Your task to perform on an android device: Go to CNN.com Image 0: 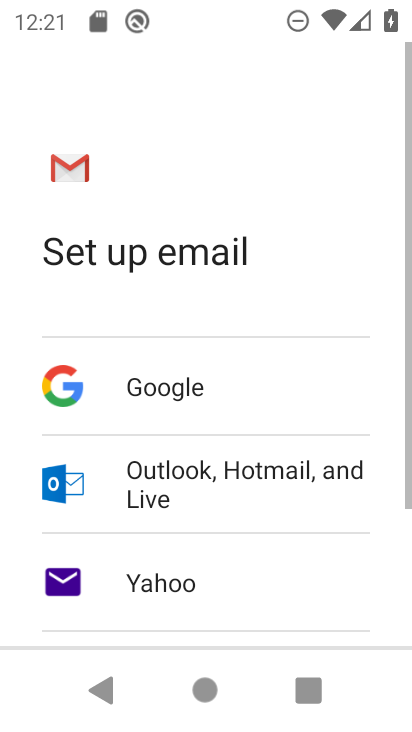
Step 0: press back button
Your task to perform on an android device: Go to CNN.com Image 1: 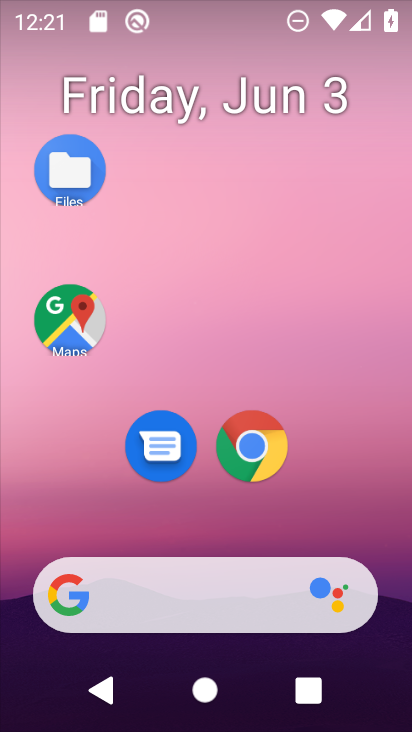
Step 1: drag from (220, 576) to (178, 185)
Your task to perform on an android device: Go to CNN.com Image 2: 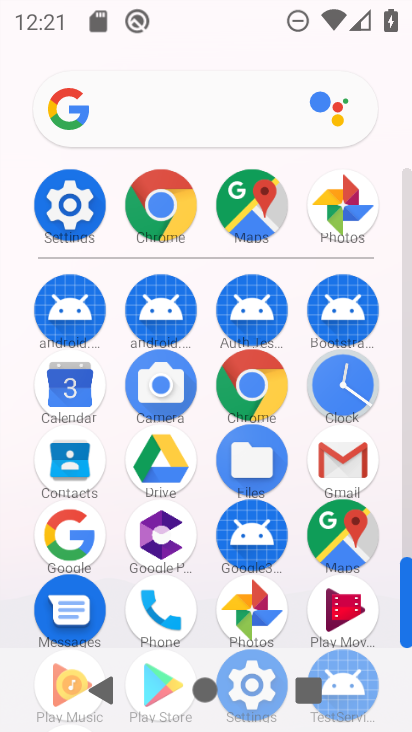
Step 2: click (167, 206)
Your task to perform on an android device: Go to CNN.com Image 3: 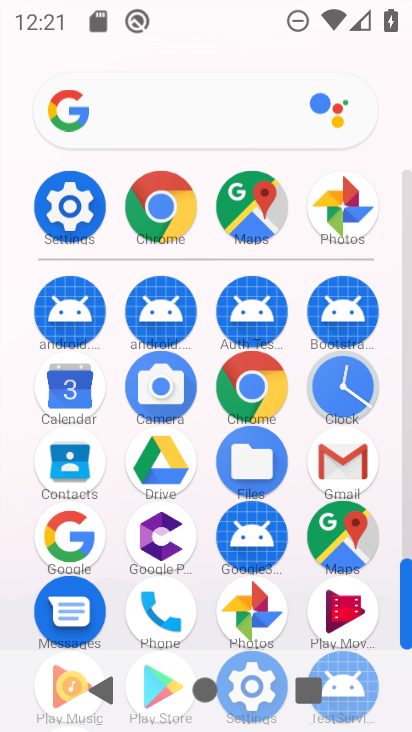
Step 3: click (164, 222)
Your task to perform on an android device: Go to CNN.com Image 4: 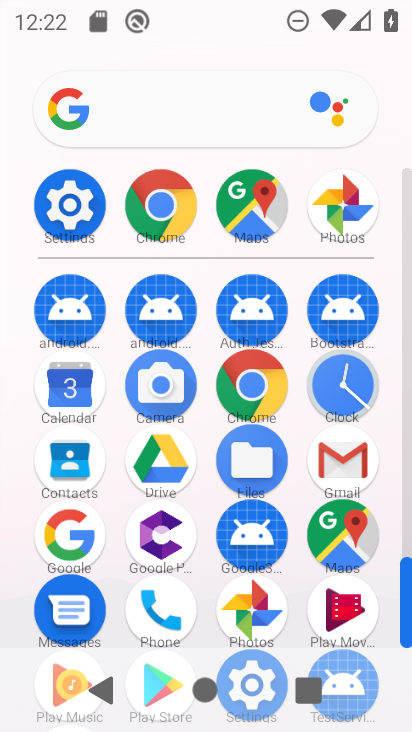
Step 4: click (160, 203)
Your task to perform on an android device: Go to CNN.com Image 5: 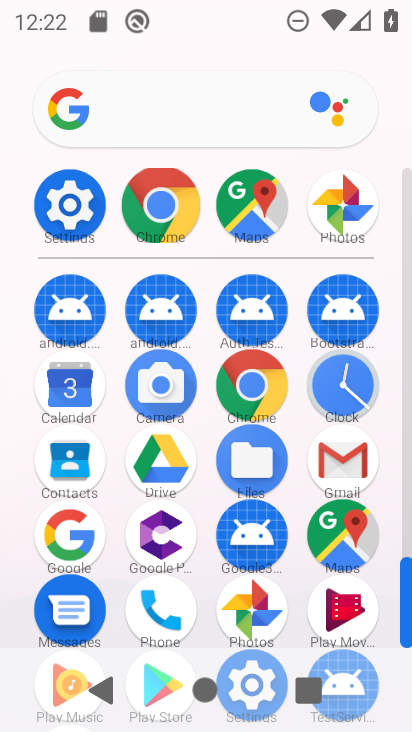
Step 5: click (160, 203)
Your task to perform on an android device: Go to CNN.com Image 6: 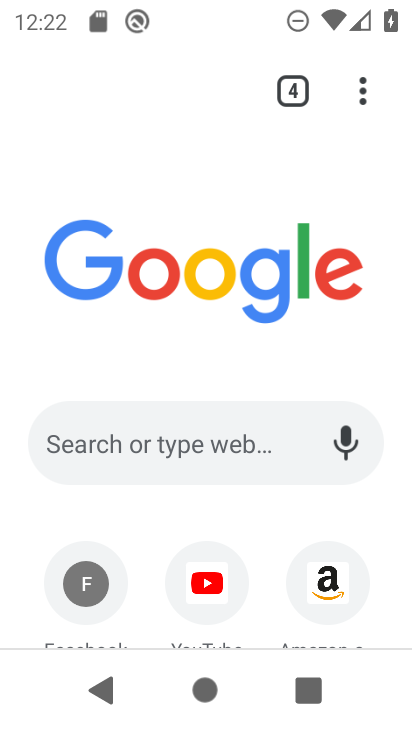
Step 6: click (160, 202)
Your task to perform on an android device: Go to CNN.com Image 7: 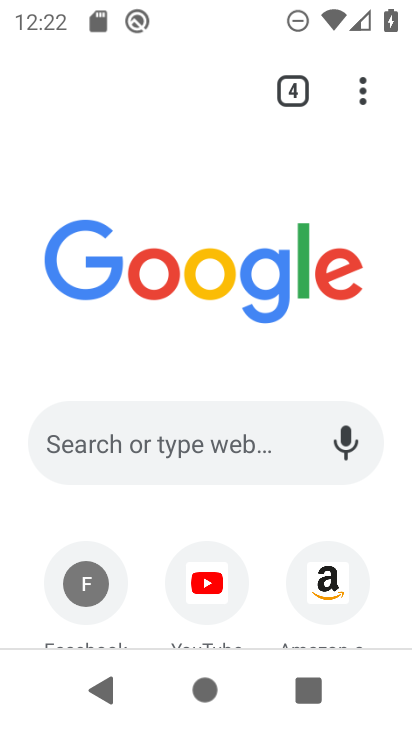
Step 7: click (160, 201)
Your task to perform on an android device: Go to CNN.com Image 8: 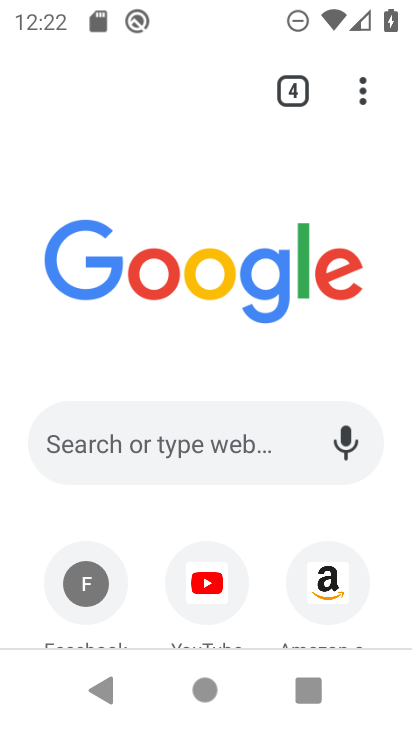
Step 8: click (99, 435)
Your task to perform on an android device: Go to CNN.com Image 9: 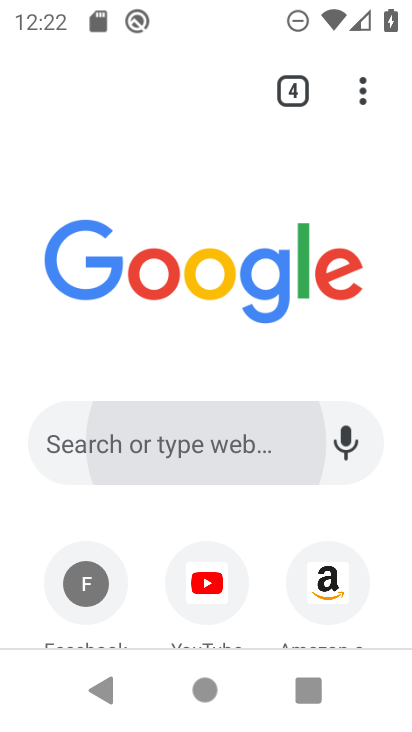
Step 9: click (98, 435)
Your task to perform on an android device: Go to CNN.com Image 10: 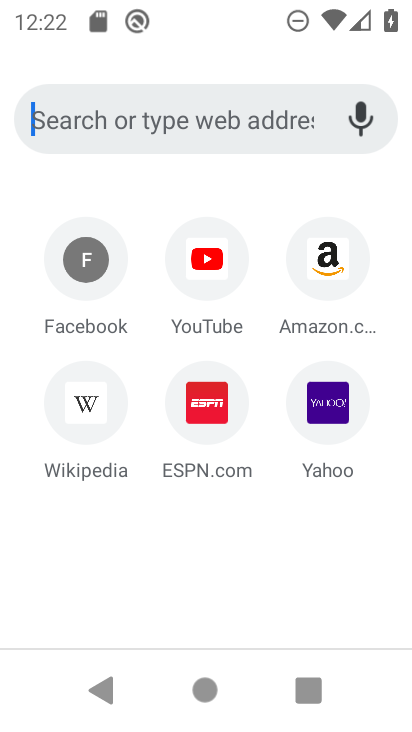
Step 10: click (98, 435)
Your task to perform on an android device: Go to CNN.com Image 11: 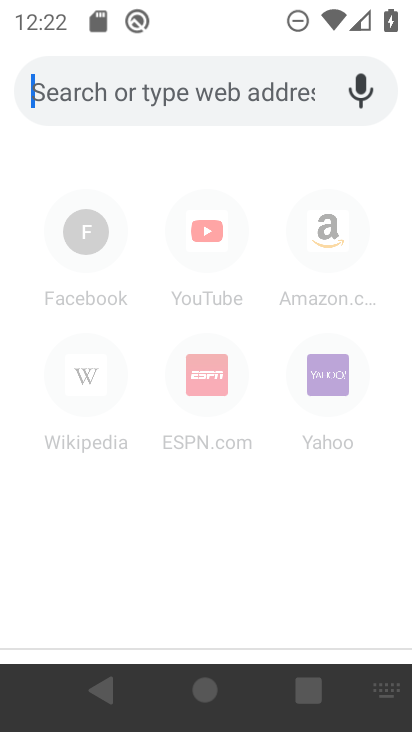
Step 11: click (96, 435)
Your task to perform on an android device: Go to CNN.com Image 12: 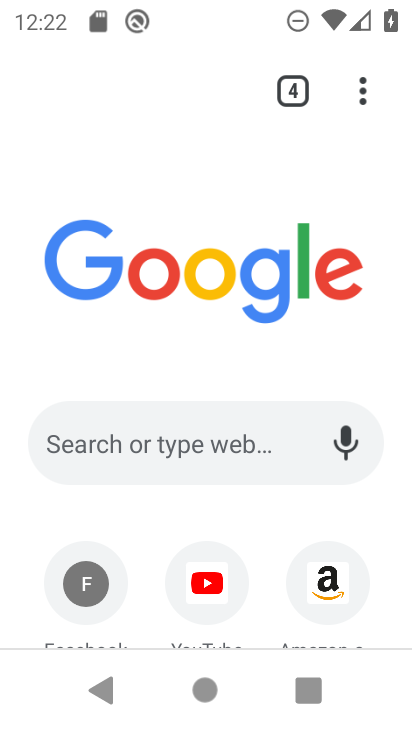
Step 12: click (85, 434)
Your task to perform on an android device: Go to CNN.com Image 13: 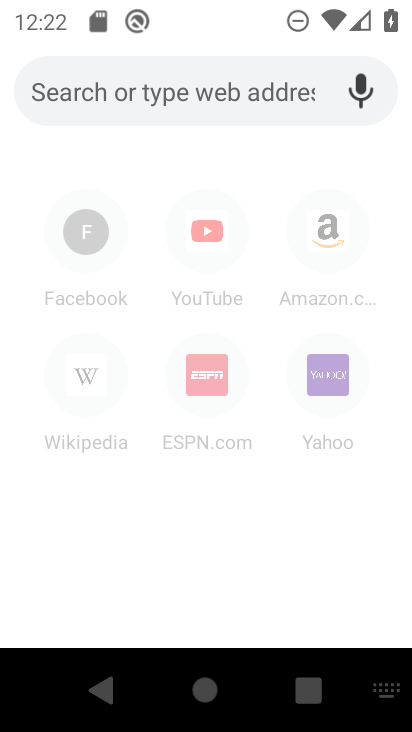
Step 13: type "cnn.com"
Your task to perform on an android device: Go to CNN.com Image 14: 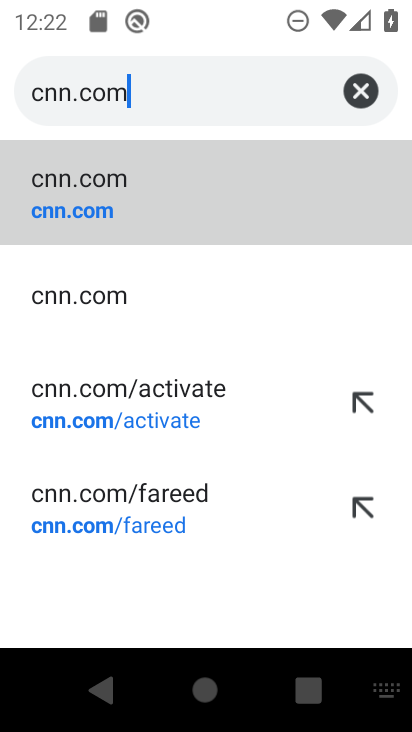
Step 14: click (67, 210)
Your task to perform on an android device: Go to CNN.com Image 15: 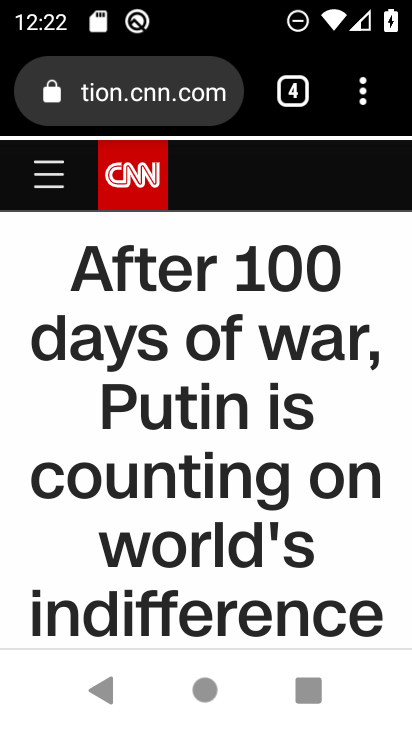
Step 15: task complete